Your task to perform on an android device: turn off location history Image 0: 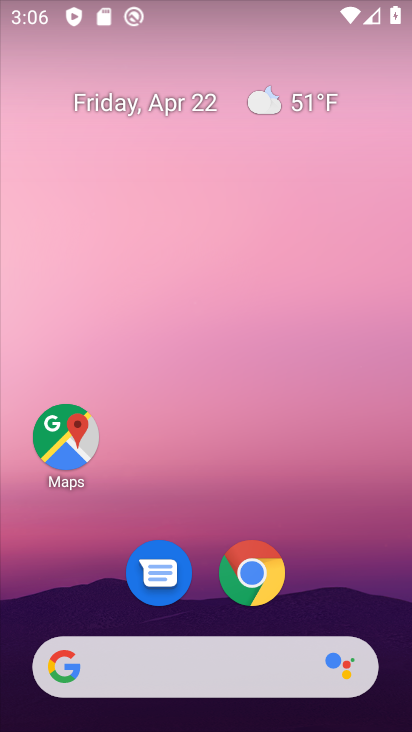
Step 0: drag from (333, 521) to (351, 80)
Your task to perform on an android device: turn off location history Image 1: 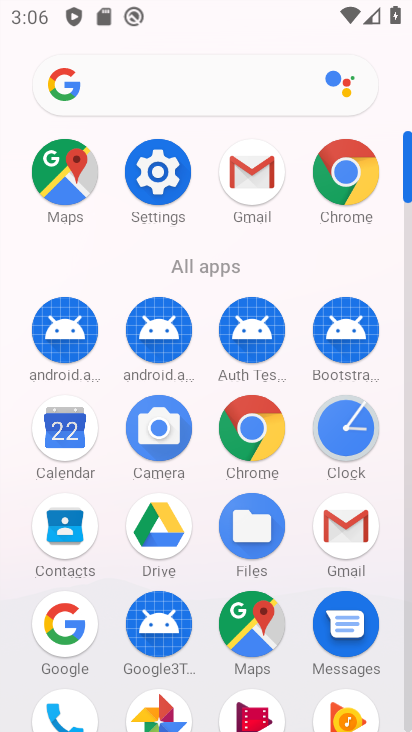
Step 1: click (170, 176)
Your task to perform on an android device: turn off location history Image 2: 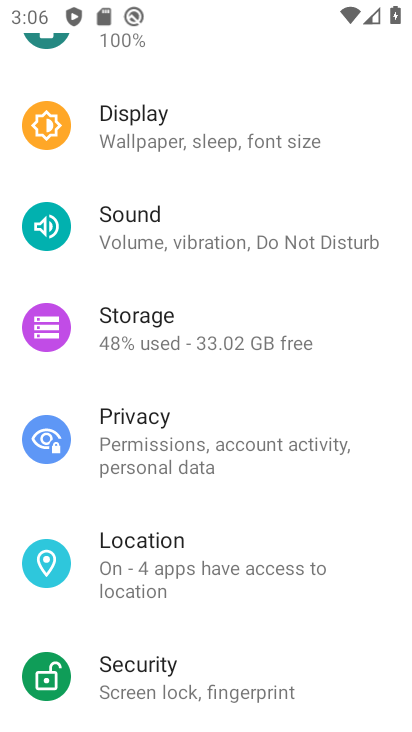
Step 2: click (191, 571)
Your task to perform on an android device: turn off location history Image 3: 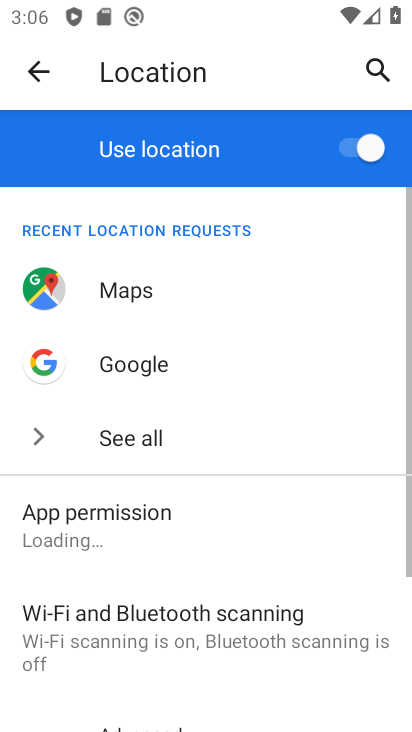
Step 3: drag from (191, 571) to (222, 164)
Your task to perform on an android device: turn off location history Image 4: 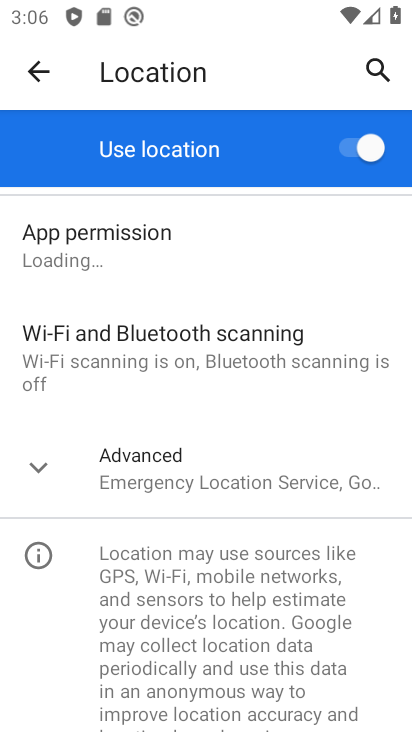
Step 4: click (212, 458)
Your task to perform on an android device: turn off location history Image 5: 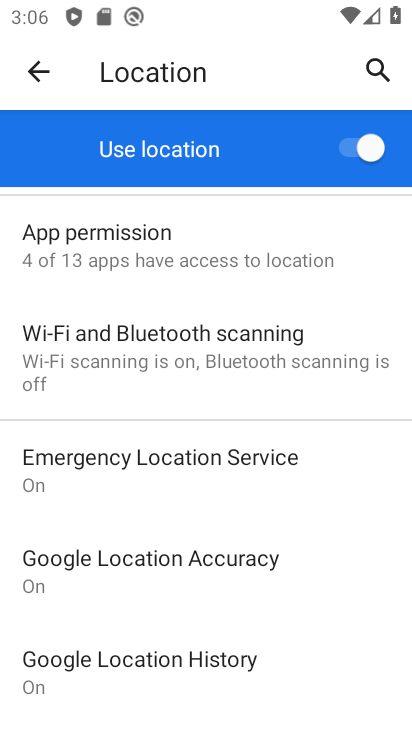
Step 5: click (210, 645)
Your task to perform on an android device: turn off location history Image 6: 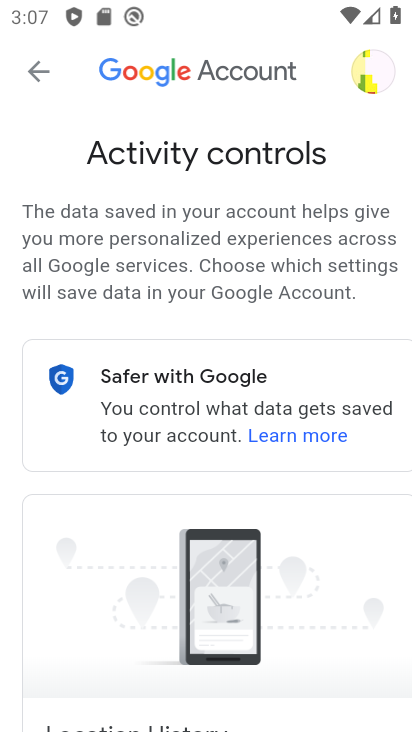
Step 6: task complete